Your task to perform on an android device: What's the weather going to be tomorrow? Image 0: 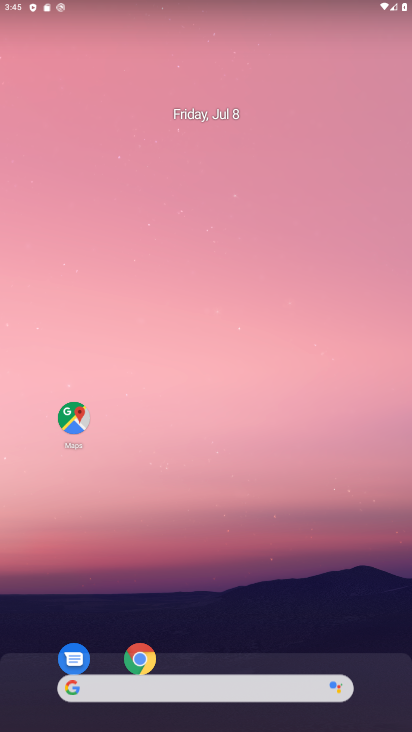
Step 0: drag from (190, 667) to (263, 107)
Your task to perform on an android device: What's the weather going to be tomorrow? Image 1: 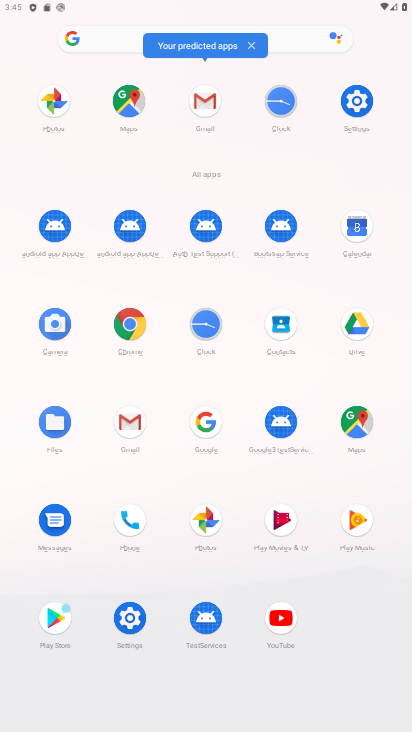
Step 1: click (200, 426)
Your task to perform on an android device: What's the weather going to be tomorrow? Image 2: 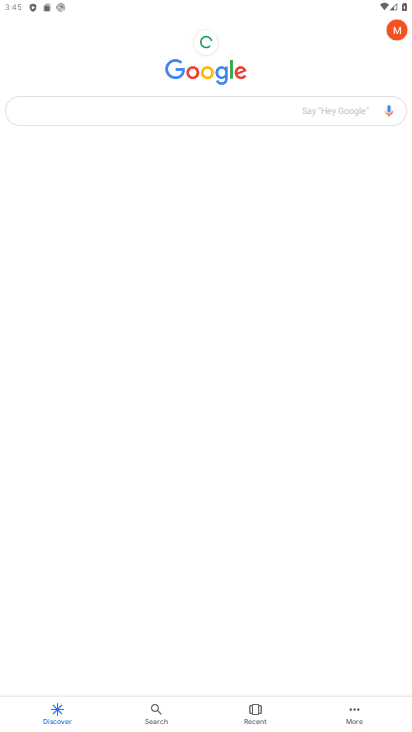
Step 2: click (222, 113)
Your task to perform on an android device: What's the weather going to be tomorrow? Image 3: 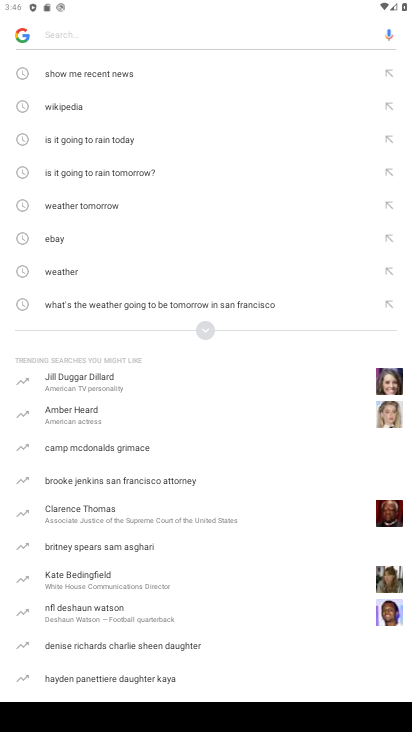
Step 3: type "What's the weather going to be tomorrow?"
Your task to perform on an android device: What's the weather going to be tomorrow? Image 4: 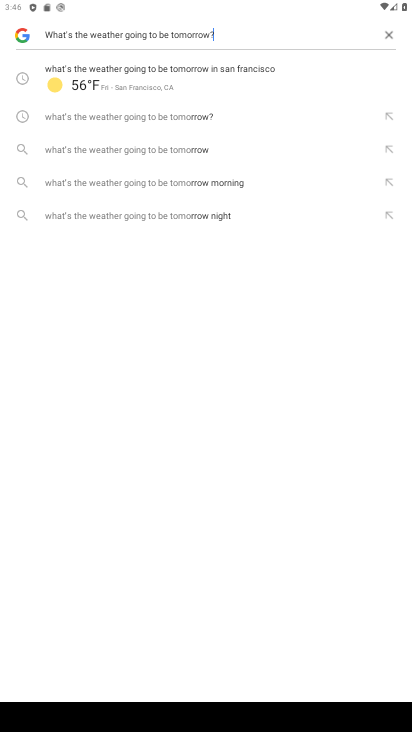
Step 4: type ""
Your task to perform on an android device: What's the weather going to be tomorrow? Image 5: 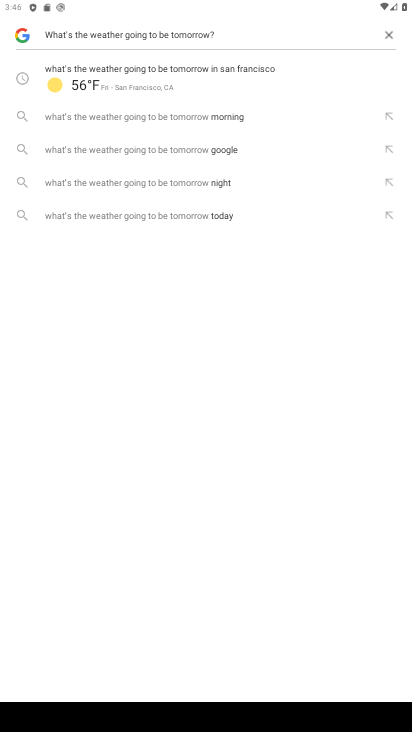
Step 5: click (152, 82)
Your task to perform on an android device: What's the weather going to be tomorrow? Image 6: 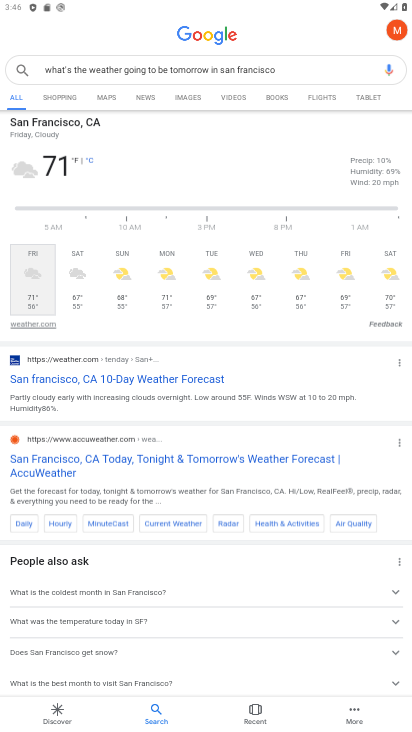
Step 6: task complete